Your task to perform on an android device: Go to wifi settings Image 0: 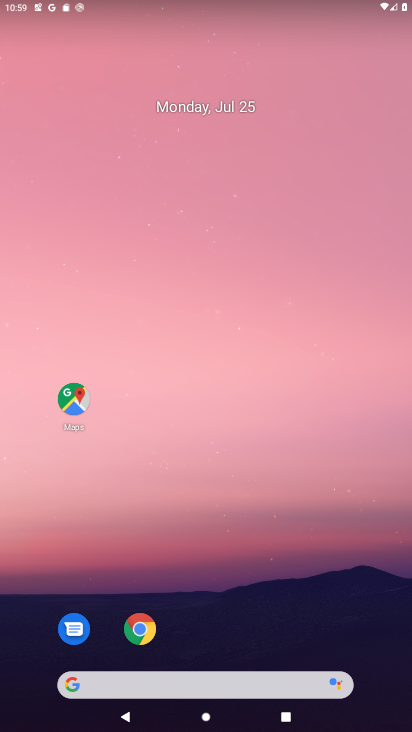
Step 0: drag from (177, 4) to (219, 408)
Your task to perform on an android device: Go to wifi settings Image 1: 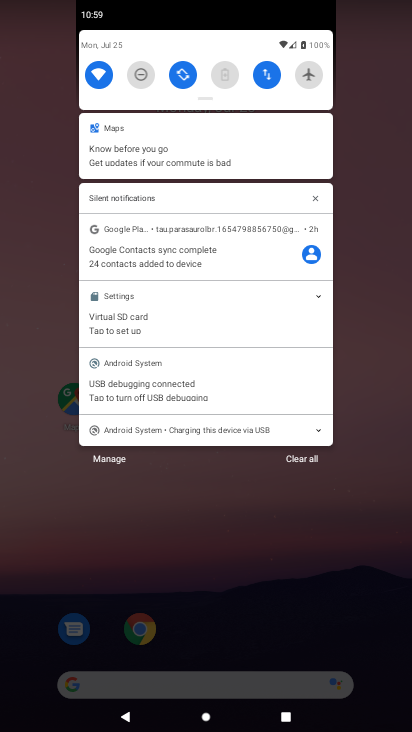
Step 1: click (95, 73)
Your task to perform on an android device: Go to wifi settings Image 2: 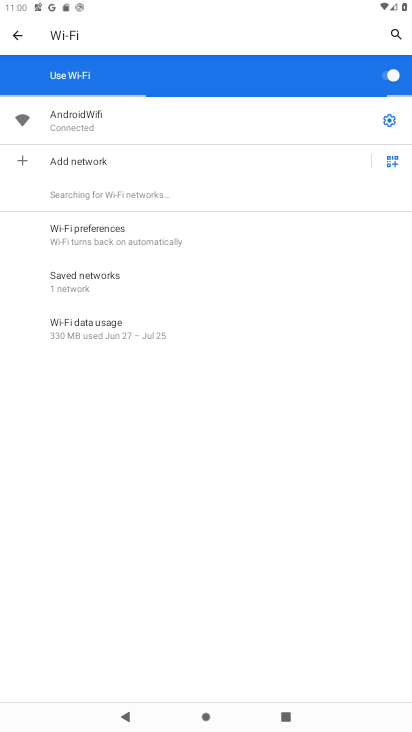
Step 2: task complete